Your task to perform on an android device: Open settings on Google Maps Image 0: 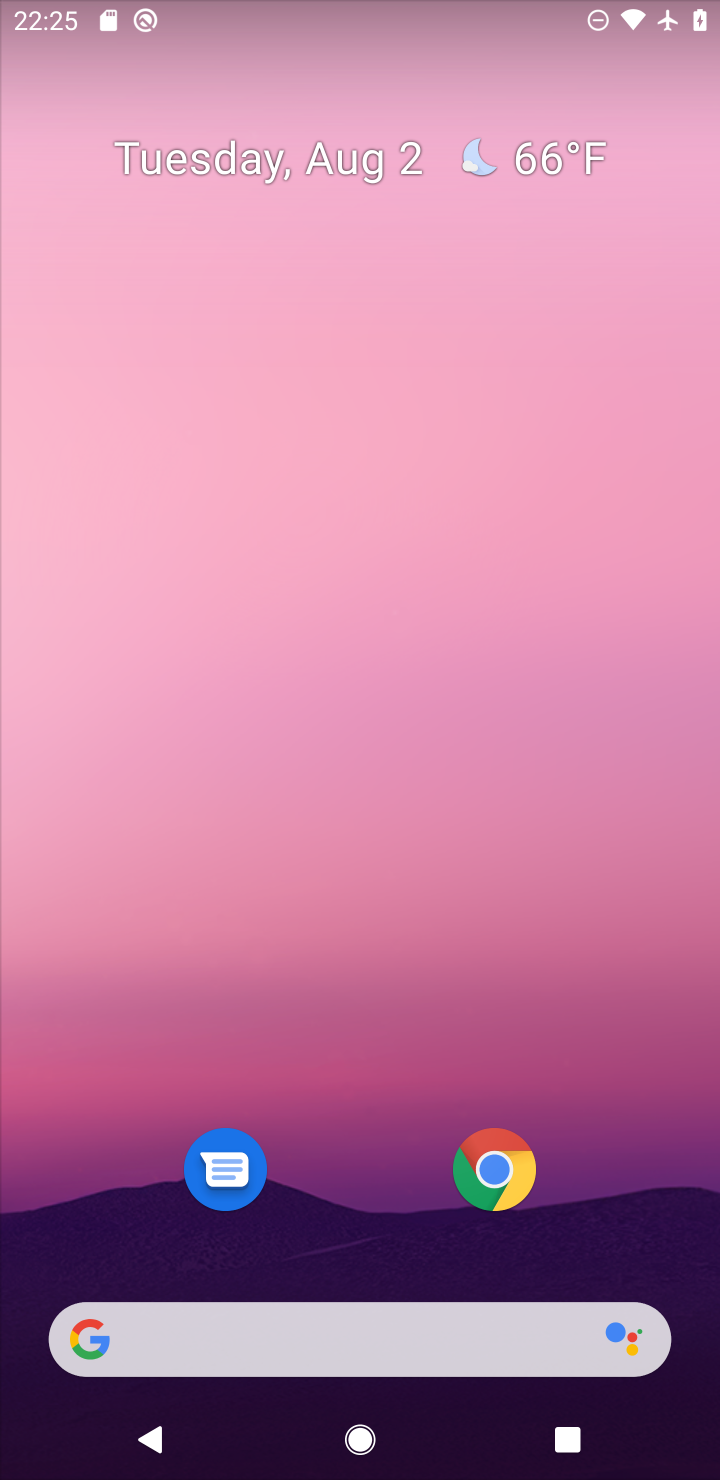
Step 0: drag from (374, 1134) to (388, 82)
Your task to perform on an android device: Open settings on Google Maps Image 1: 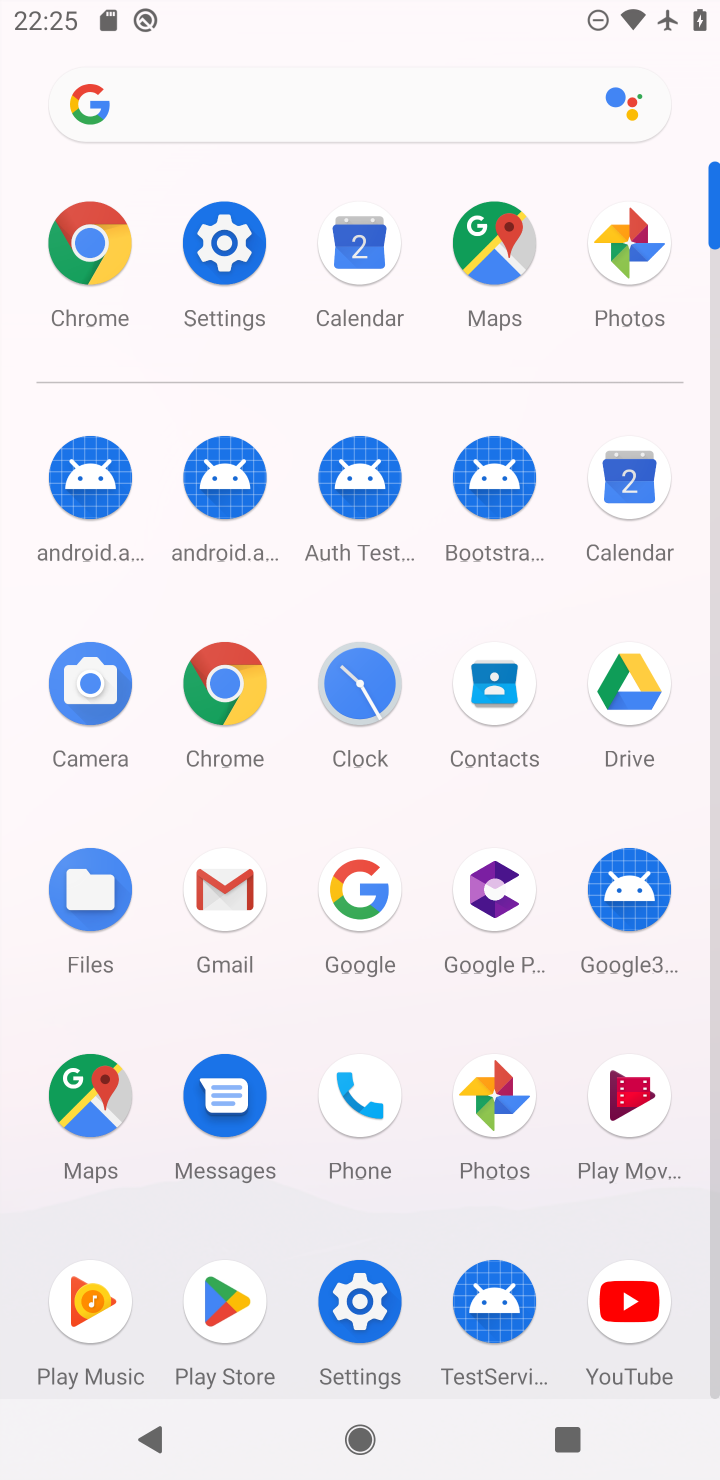
Step 1: click (79, 1124)
Your task to perform on an android device: Open settings on Google Maps Image 2: 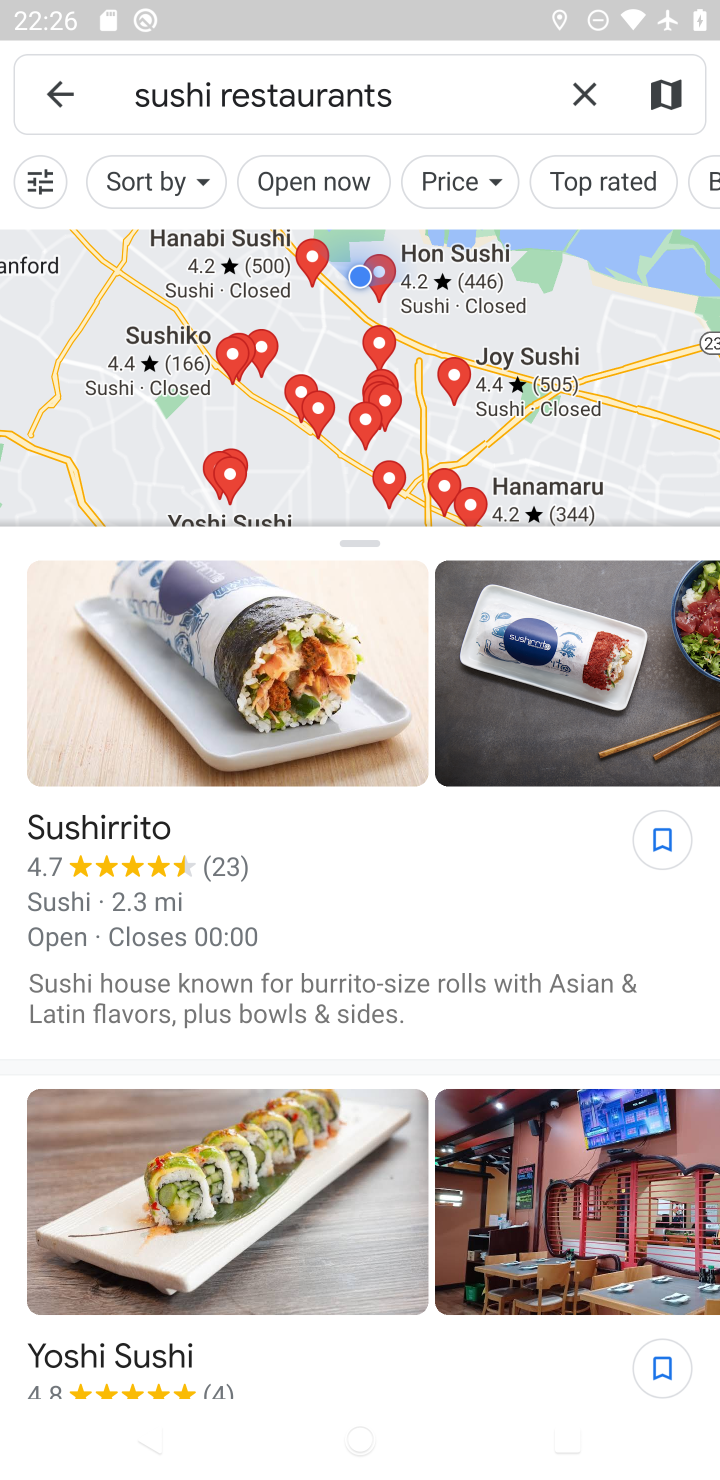
Step 2: click (57, 97)
Your task to perform on an android device: Open settings on Google Maps Image 3: 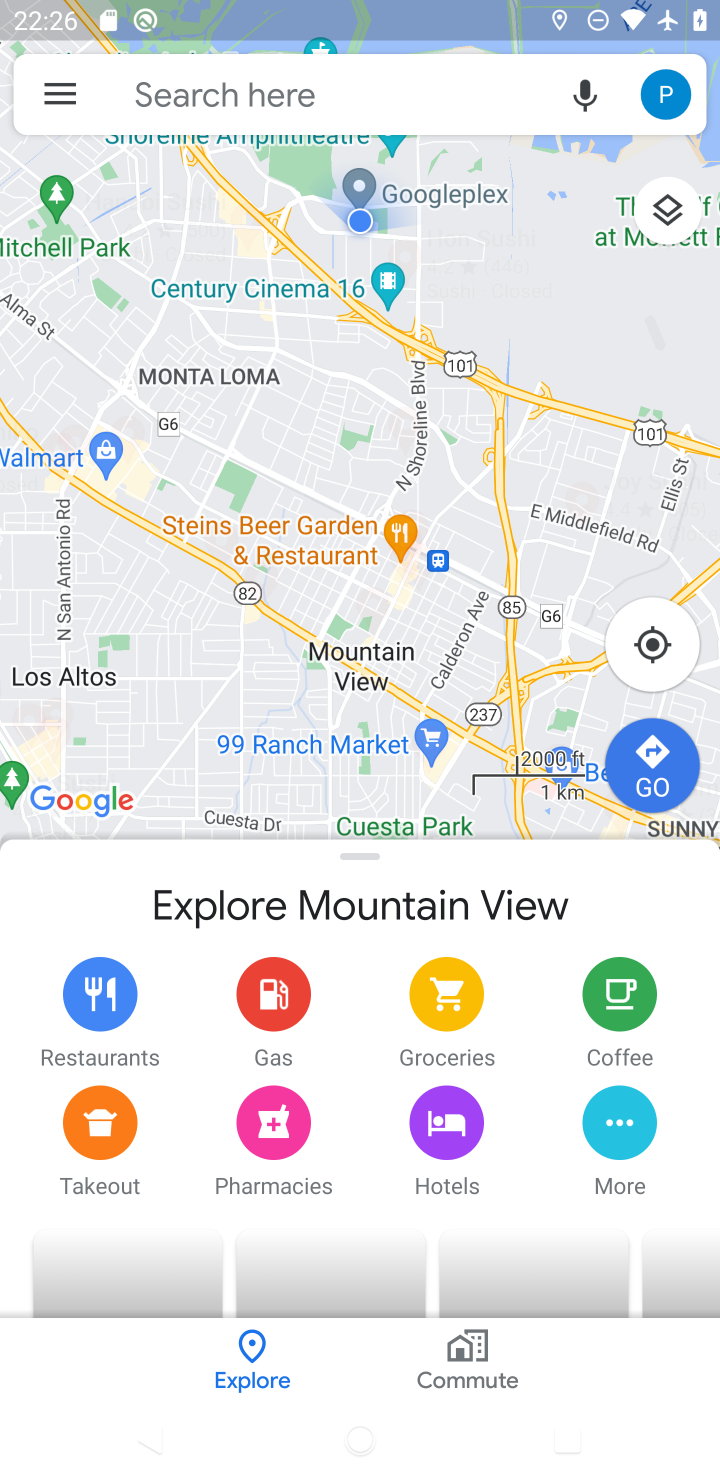
Step 3: click (60, 86)
Your task to perform on an android device: Open settings on Google Maps Image 4: 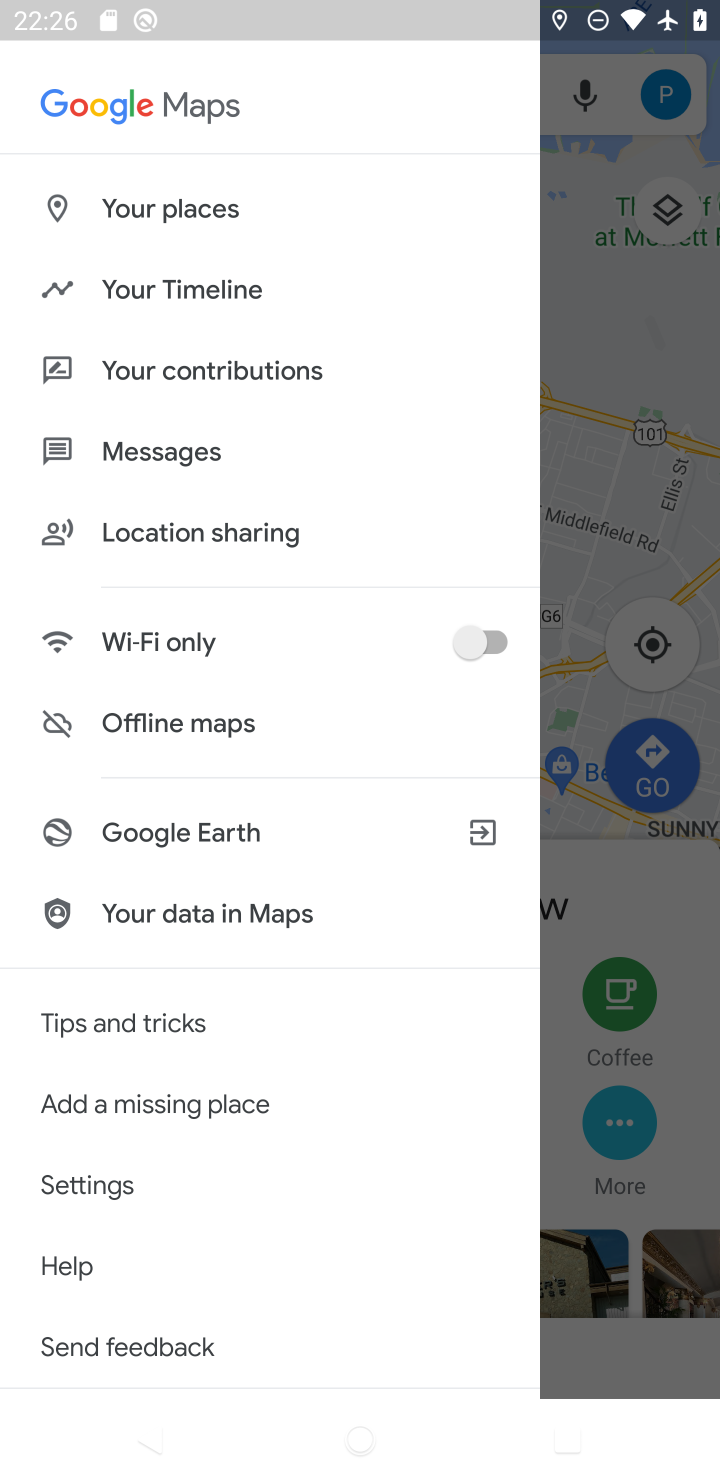
Step 4: click (105, 1188)
Your task to perform on an android device: Open settings on Google Maps Image 5: 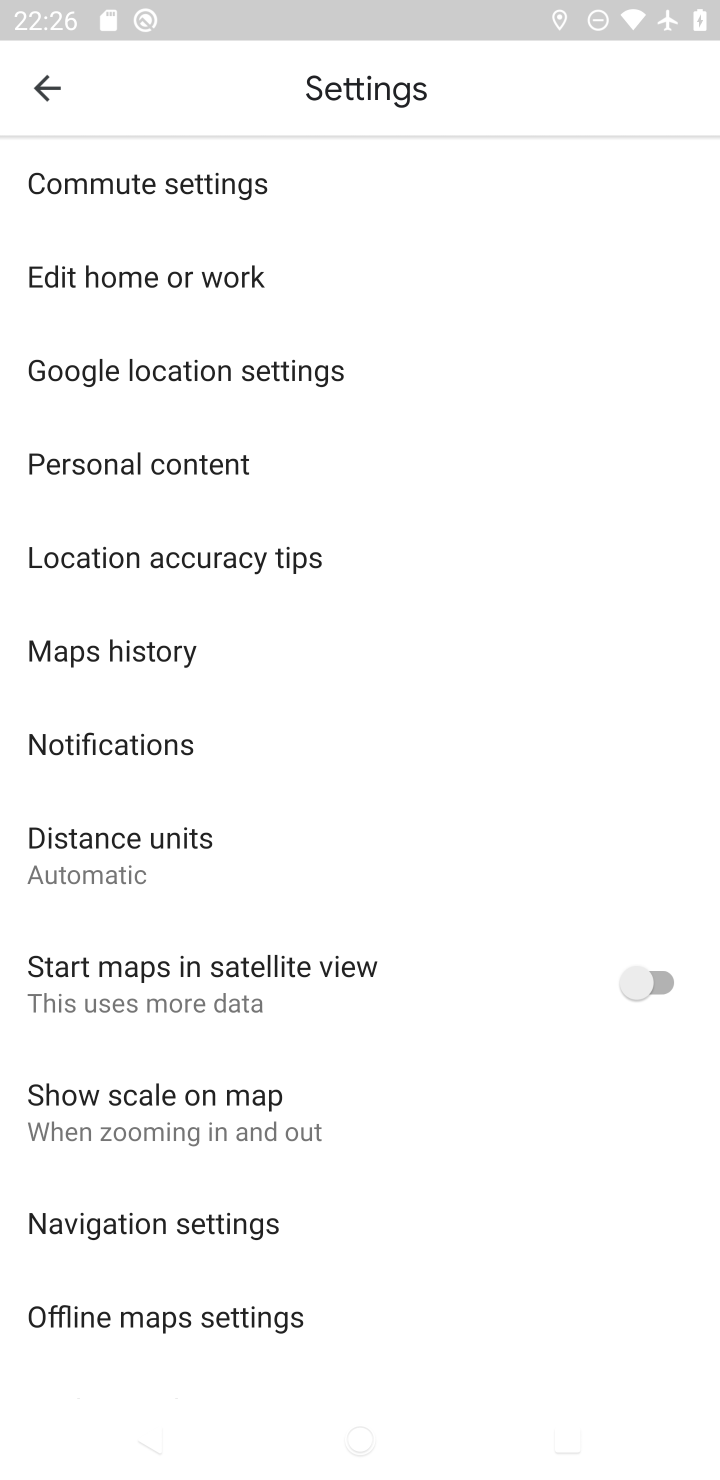
Step 5: task complete